Your task to perform on an android device: install app "DoorDash - Food Delivery" Image 0: 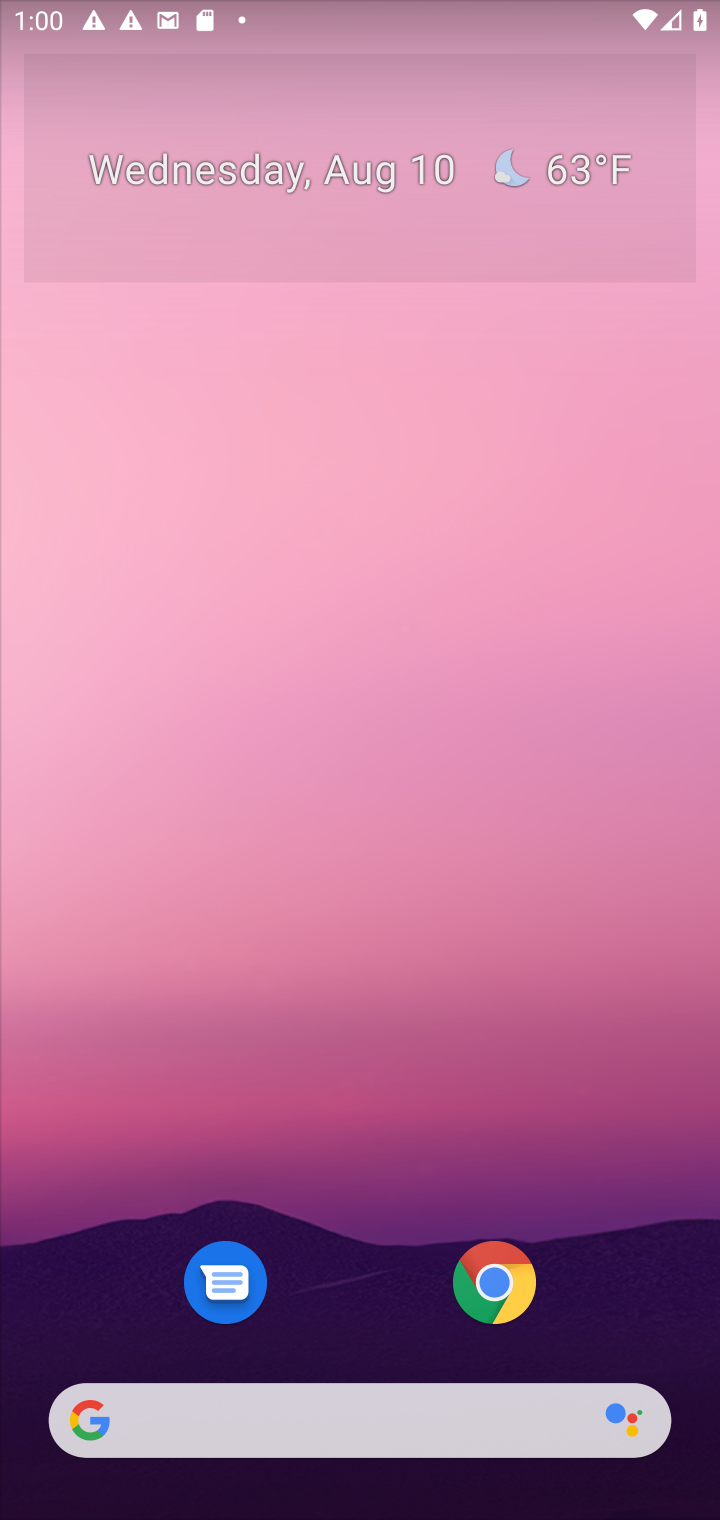
Step 0: drag from (364, 1386) to (367, 447)
Your task to perform on an android device: install app "DoorDash - Food Delivery" Image 1: 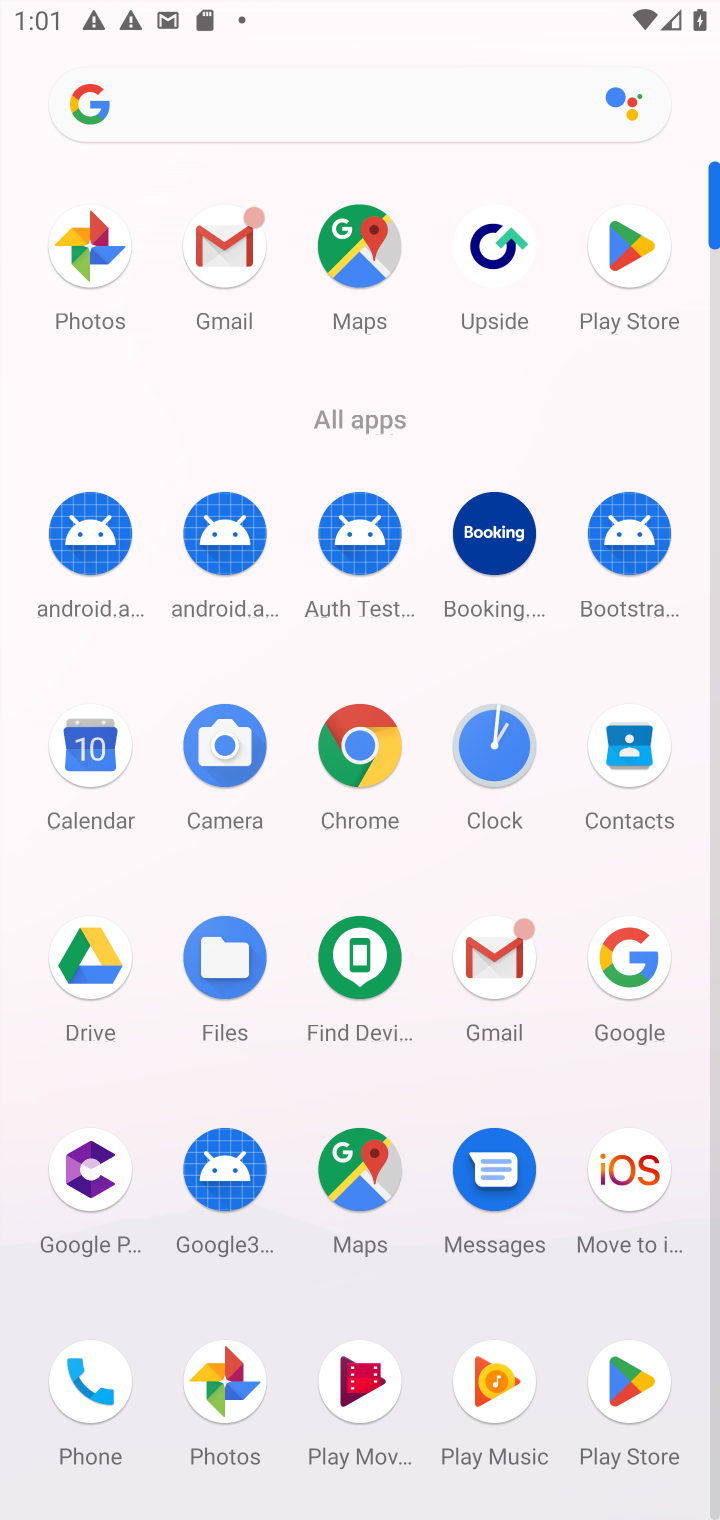
Step 1: click (637, 1362)
Your task to perform on an android device: install app "DoorDash - Food Delivery" Image 2: 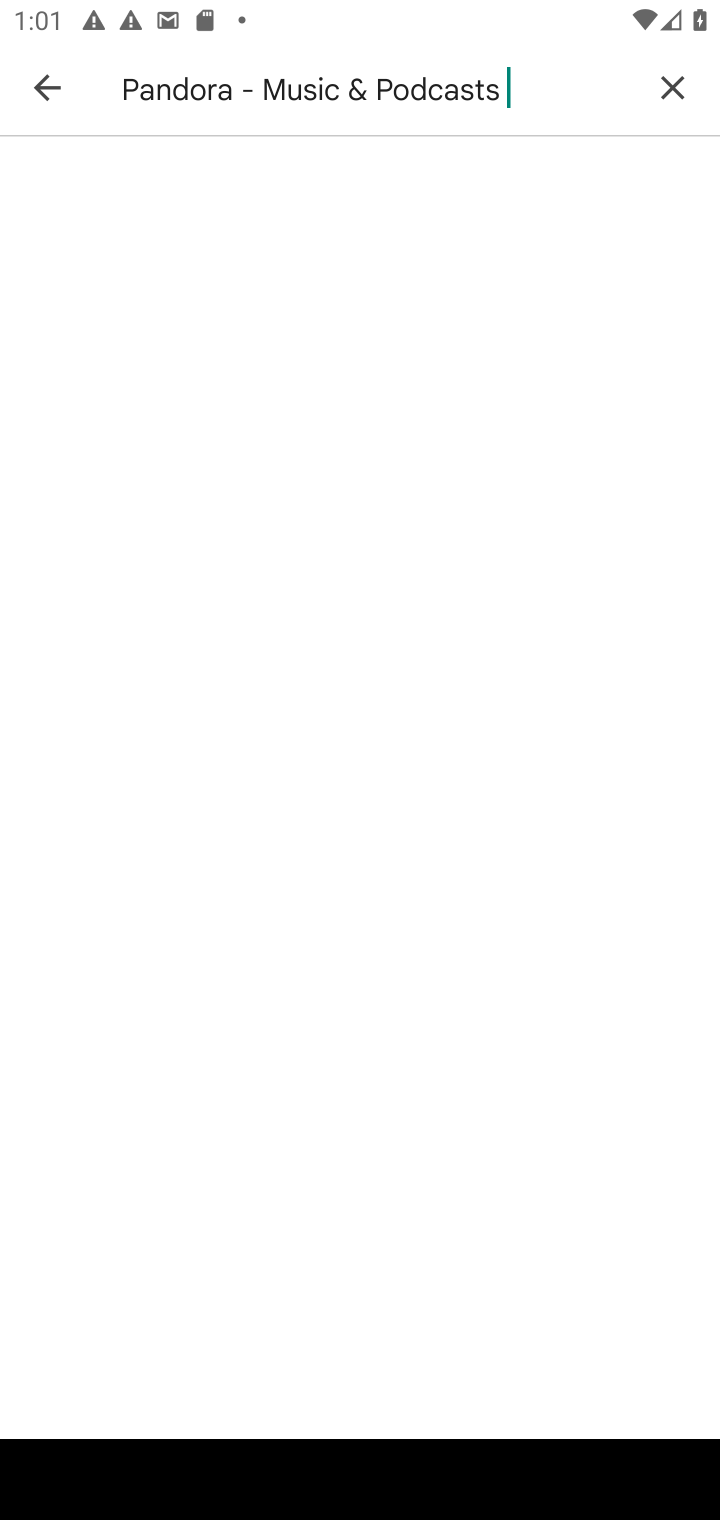
Step 2: click (52, 113)
Your task to perform on an android device: install app "DoorDash - Food Delivery" Image 3: 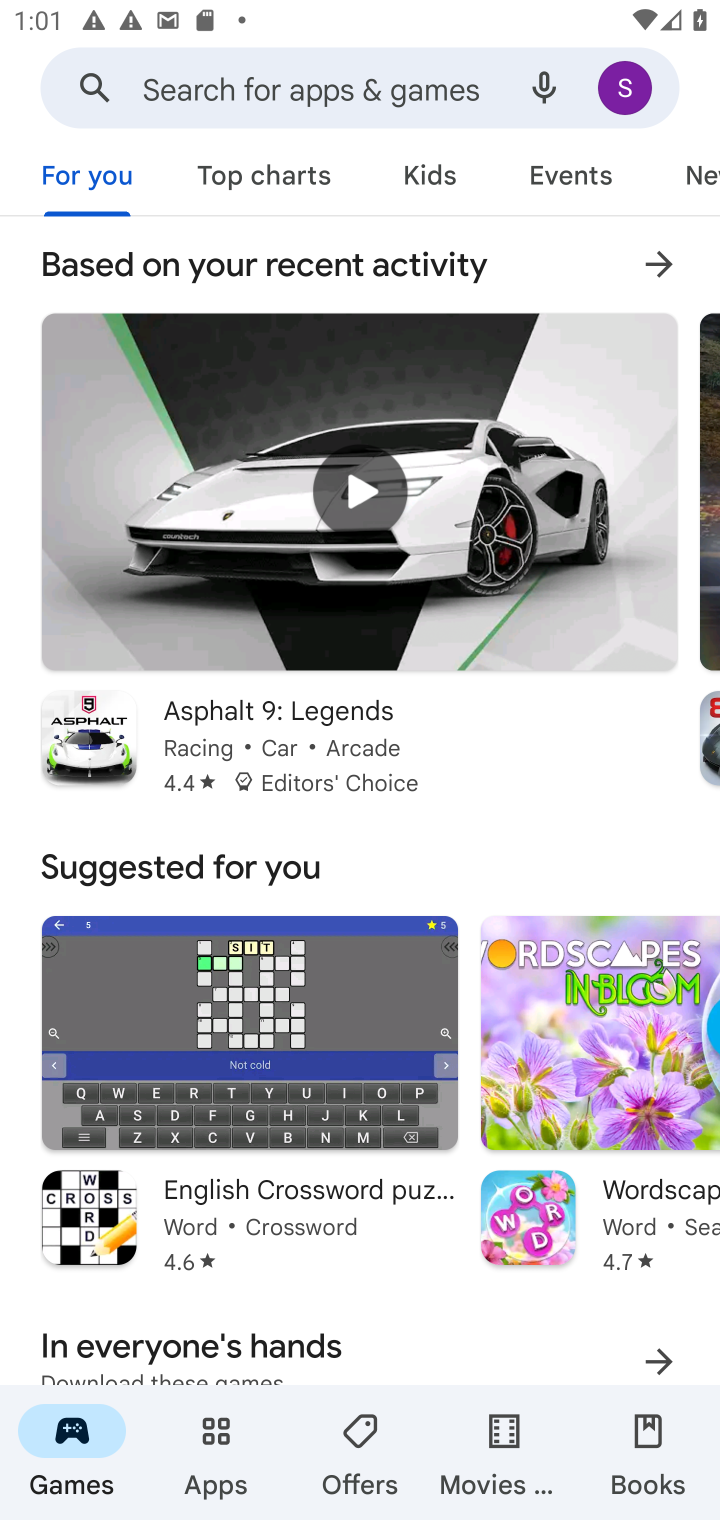
Step 3: click (320, 85)
Your task to perform on an android device: install app "DoorDash - Food Delivery" Image 4: 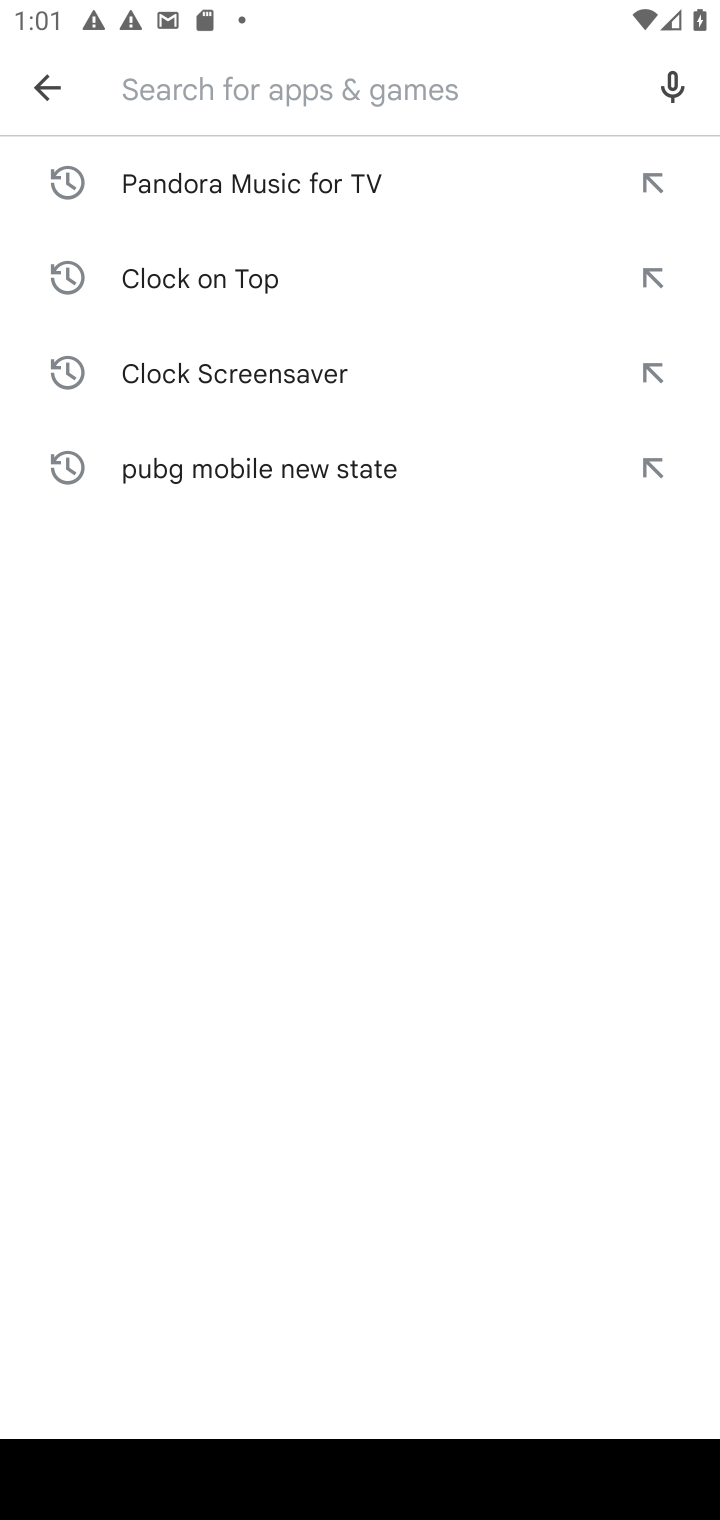
Step 4: type ""DoorDash - Food Delivery "
Your task to perform on an android device: install app "DoorDash - Food Delivery" Image 5: 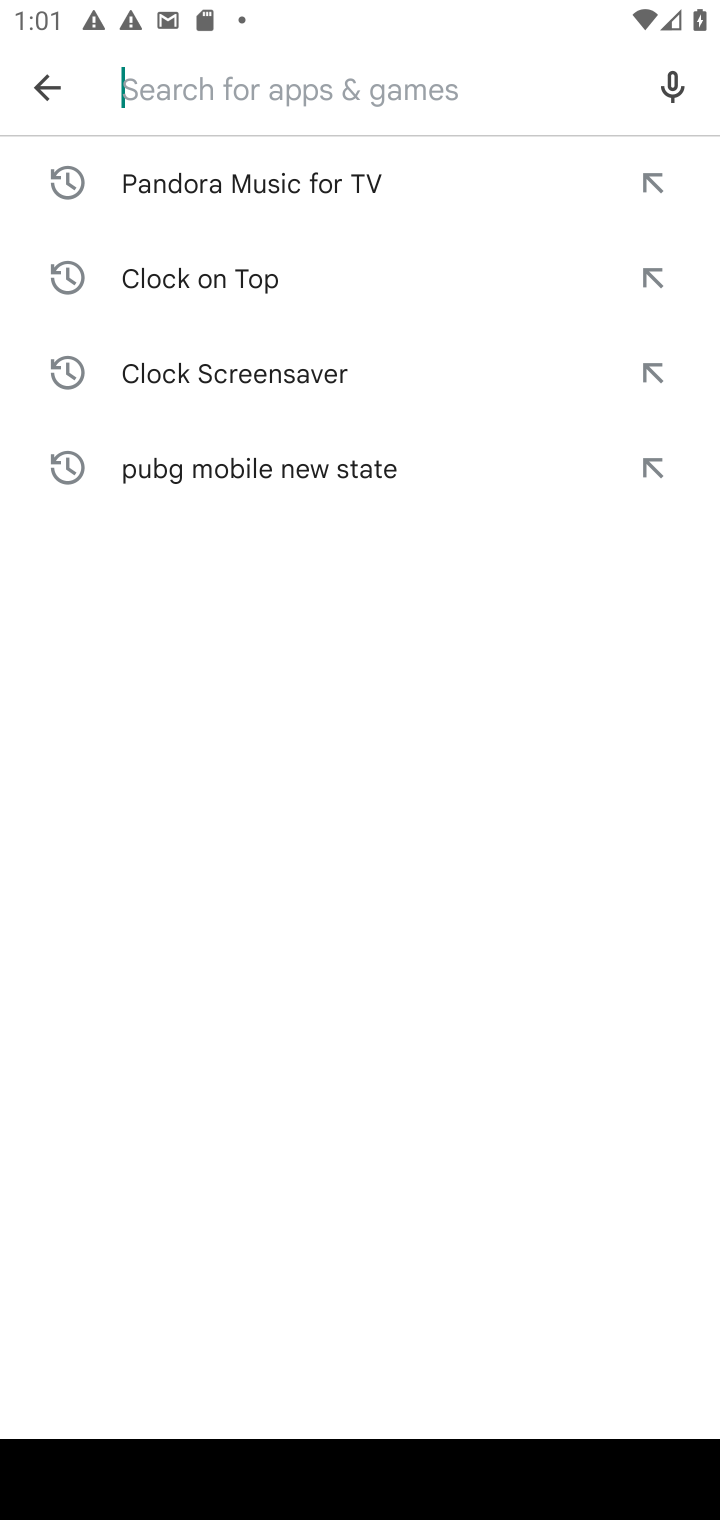
Step 5: click (377, 91)
Your task to perform on an android device: install app "DoorDash - Food Delivery" Image 6: 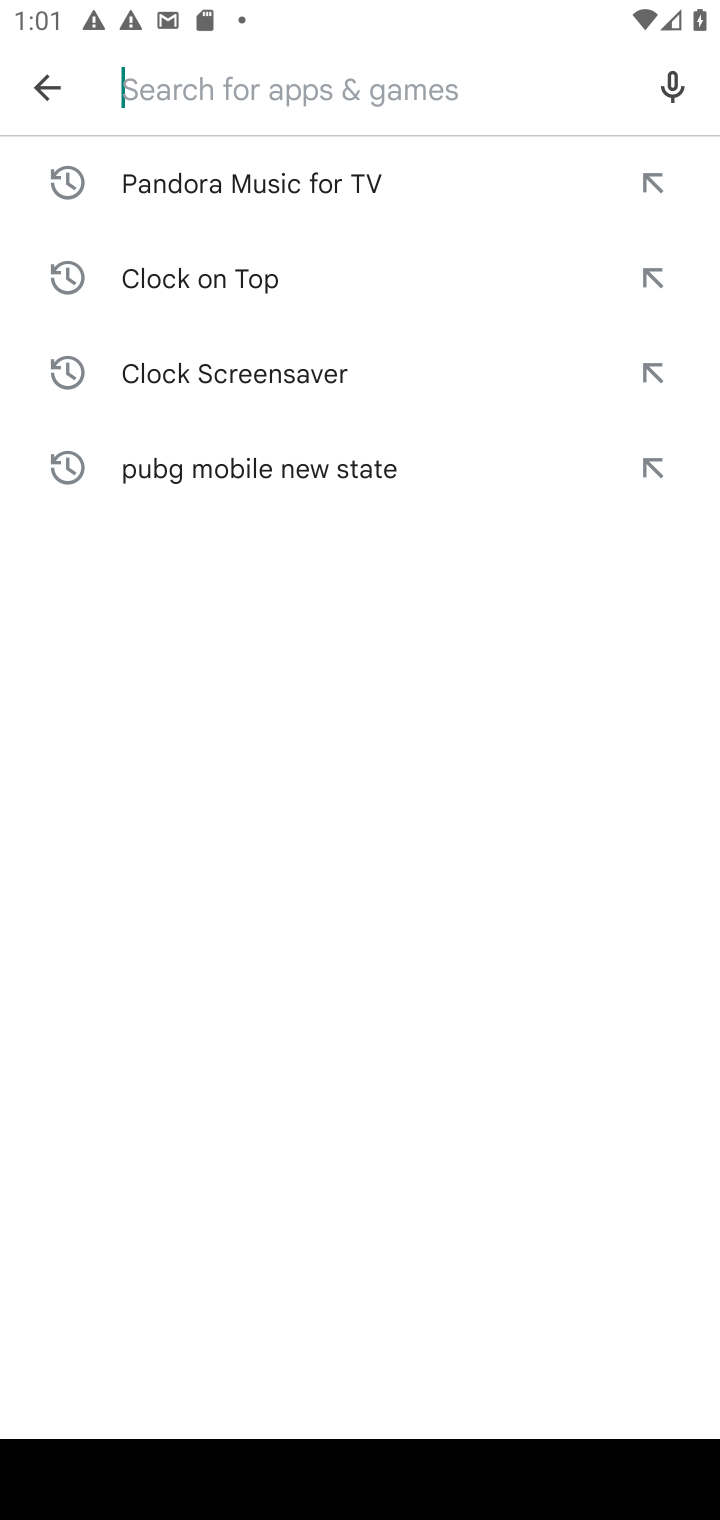
Step 6: type "DoorDash - Food Delivery "
Your task to perform on an android device: install app "DoorDash - Food Delivery" Image 7: 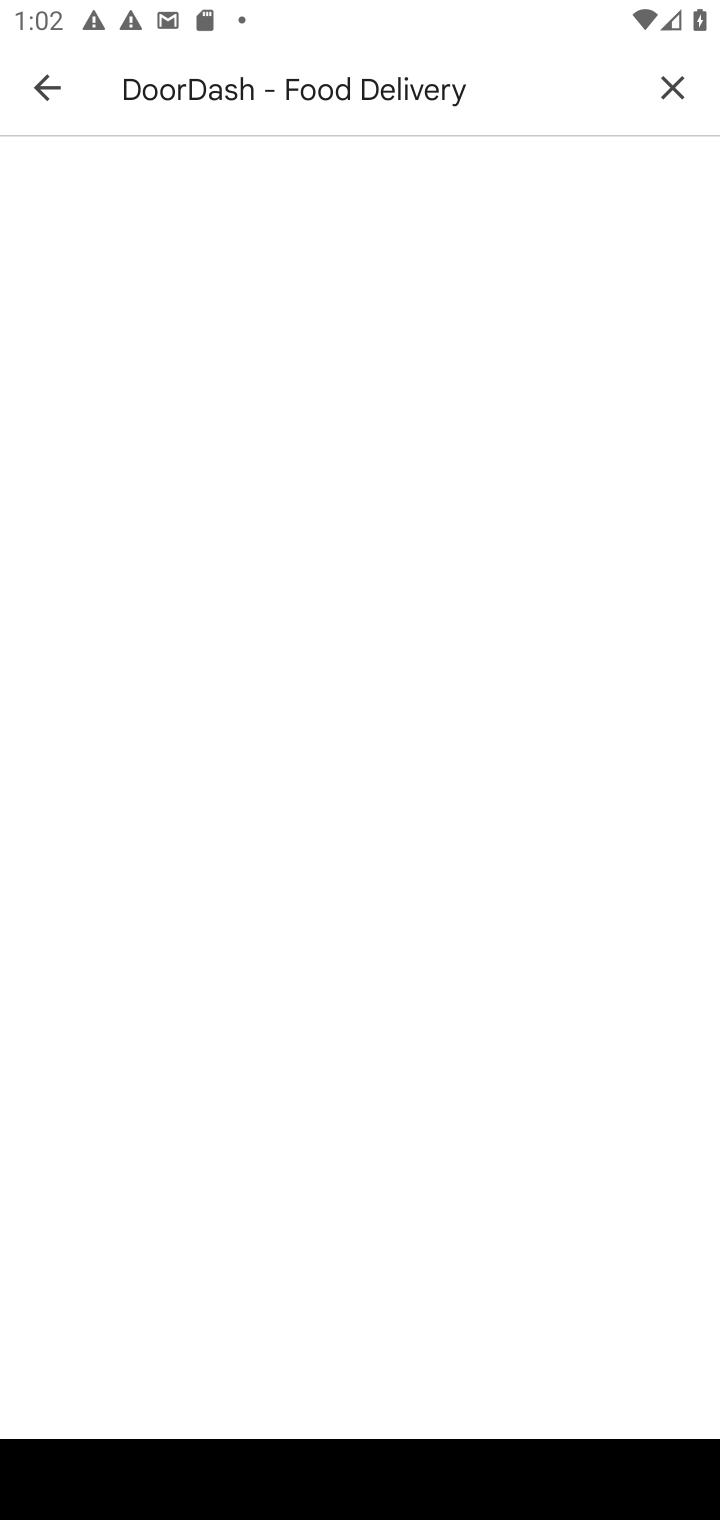
Step 7: click (237, 97)
Your task to perform on an android device: install app "DoorDash - Food Delivery" Image 8: 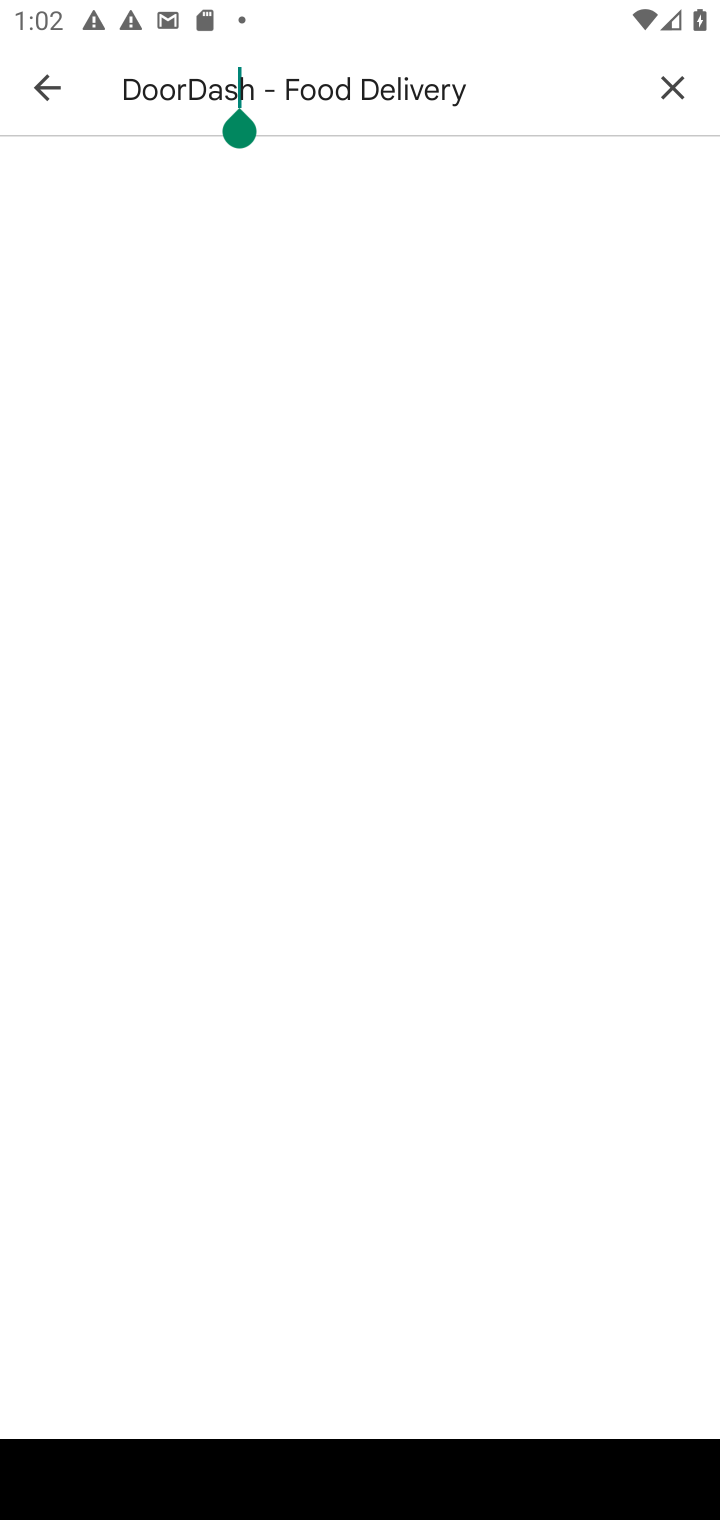
Step 8: click (692, 87)
Your task to perform on an android device: install app "DoorDash - Food Delivery" Image 9: 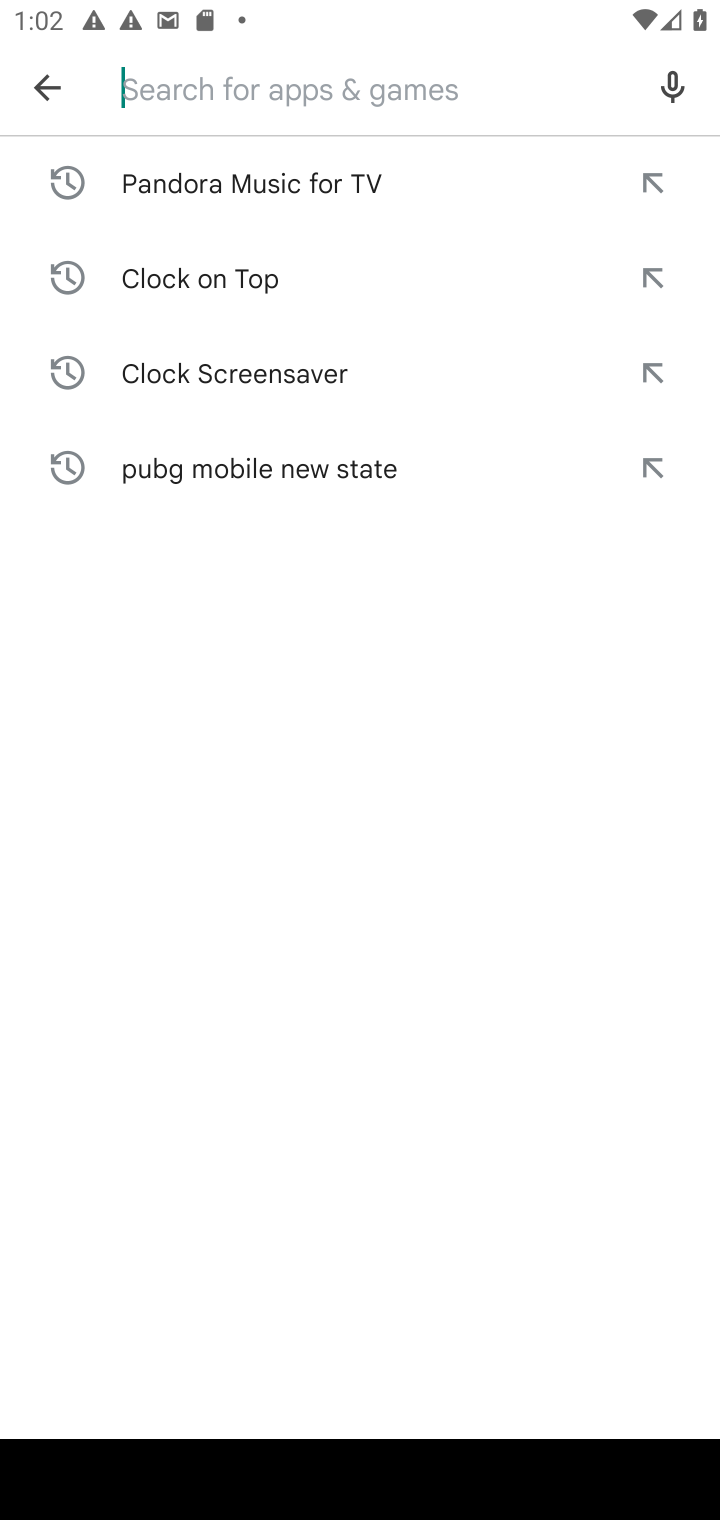
Step 9: click (294, 83)
Your task to perform on an android device: install app "DoorDash - Food Delivery" Image 10: 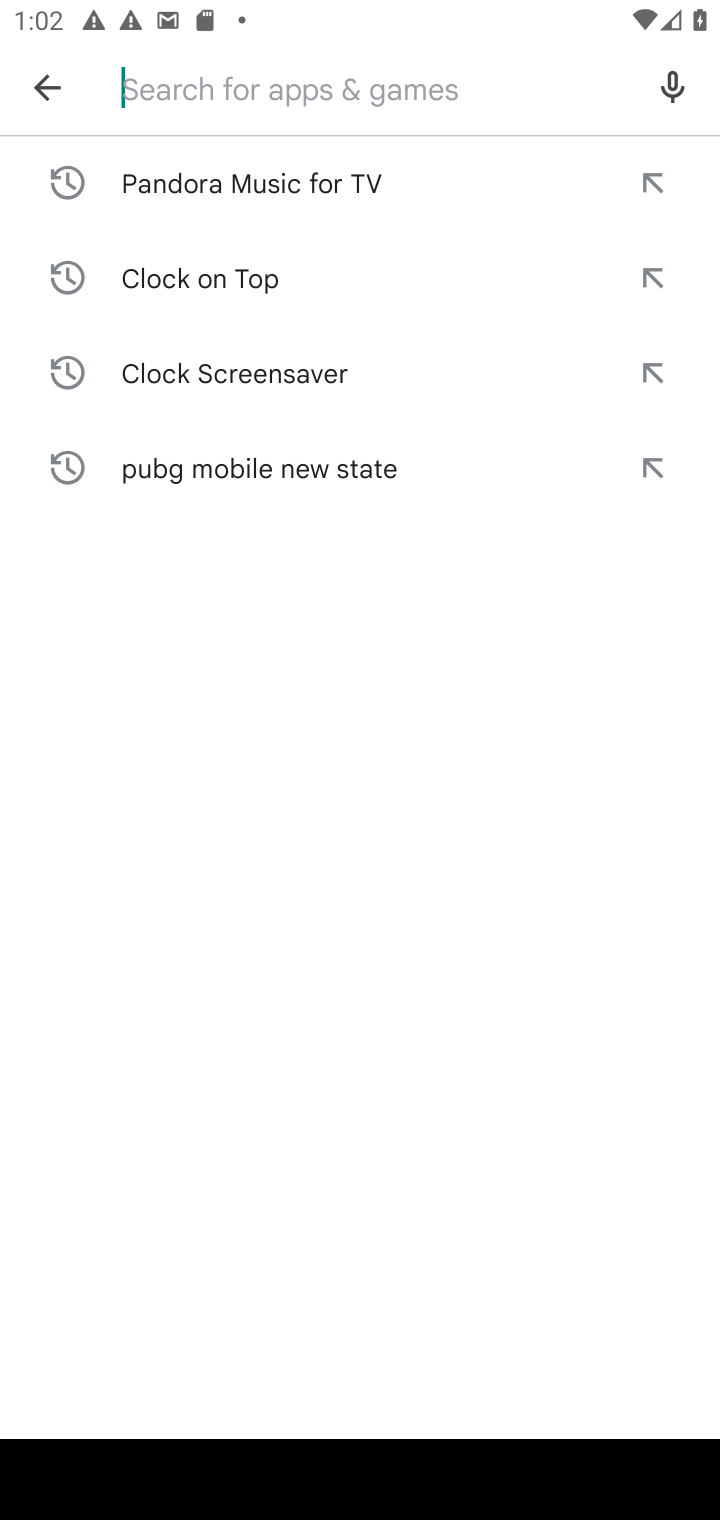
Step 10: type "DoorDash  "
Your task to perform on an android device: install app "DoorDash - Food Delivery" Image 11: 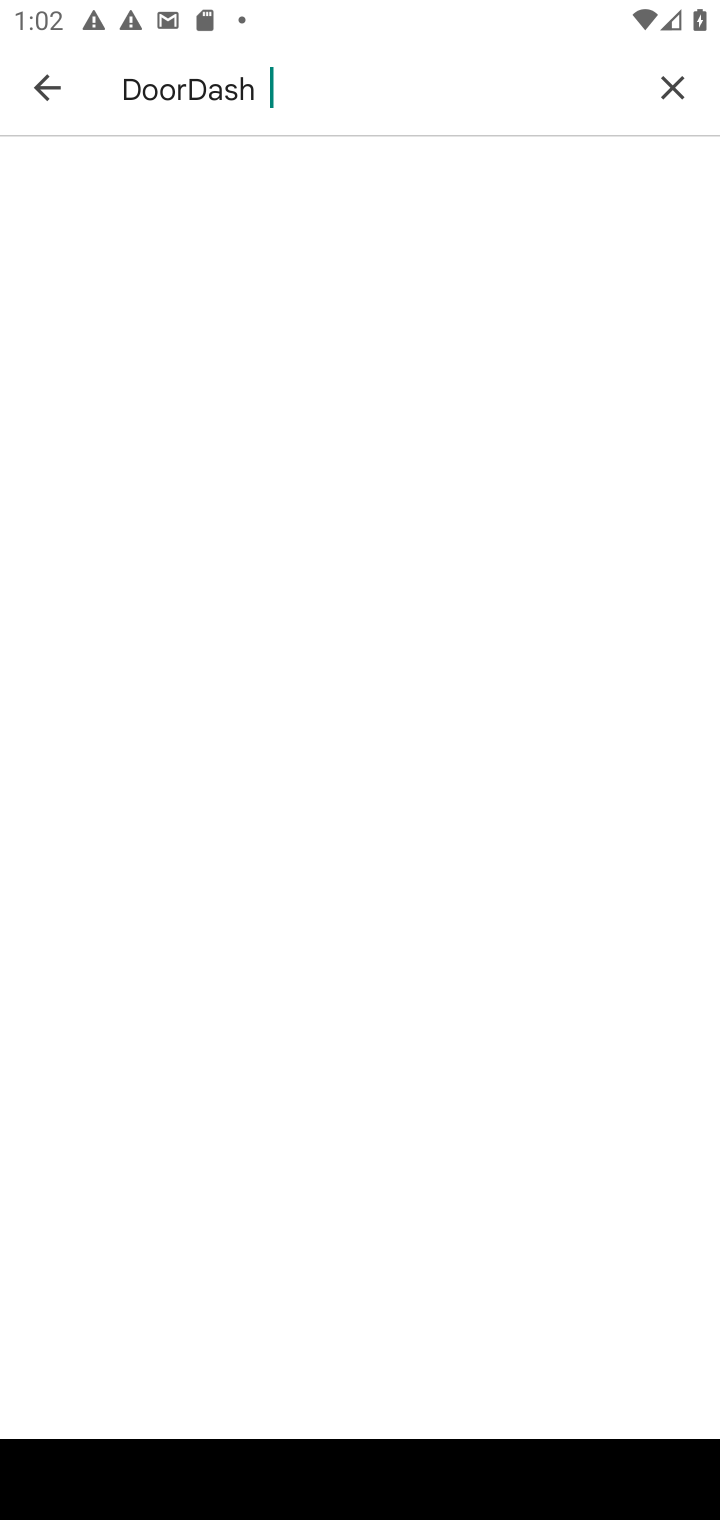
Step 11: click (321, 101)
Your task to perform on an android device: install app "DoorDash - Food Delivery" Image 12: 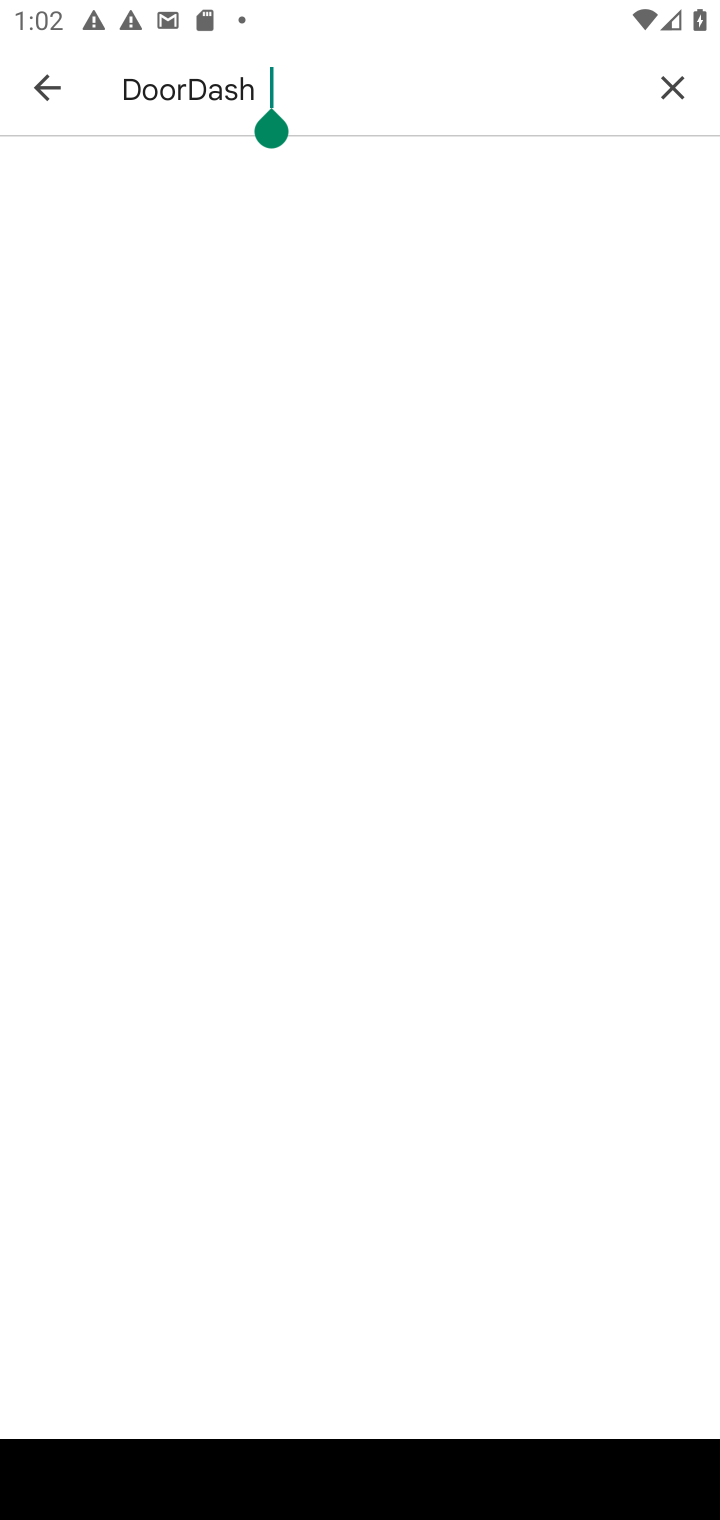
Step 12: task complete